Your task to perform on an android device: manage bookmarks in the chrome app Image 0: 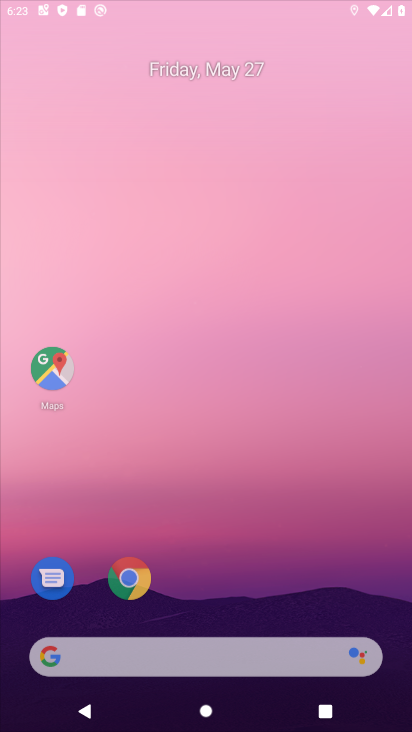
Step 0: click (245, 153)
Your task to perform on an android device: manage bookmarks in the chrome app Image 1: 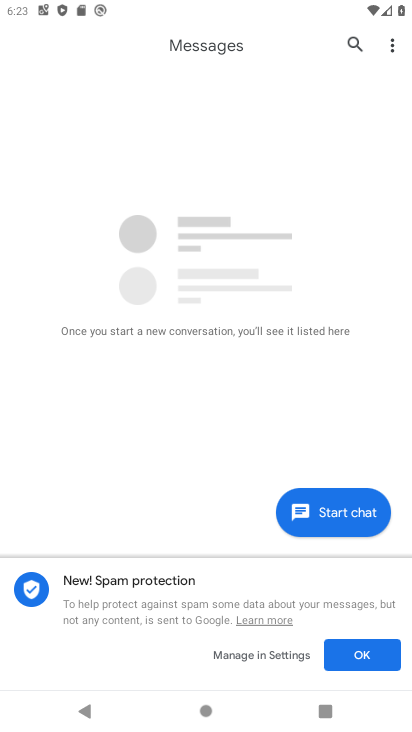
Step 1: press home button
Your task to perform on an android device: manage bookmarks in the chrome app Image 2: 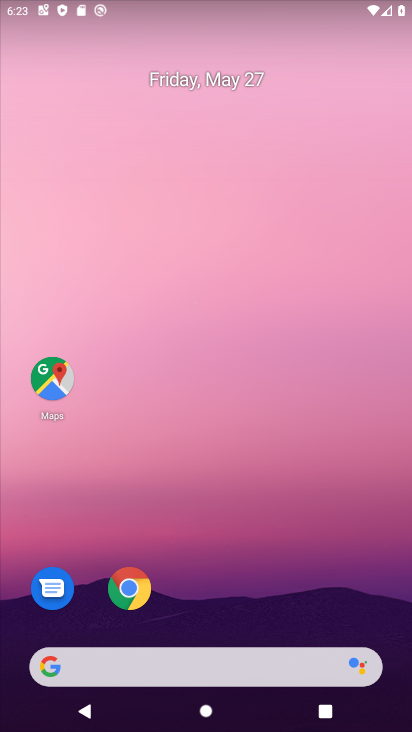
Step 2: drag from (196, 520) to (186, 74)
Your task to perform on an android device: manage bookmarks in the chrome app Image 3: 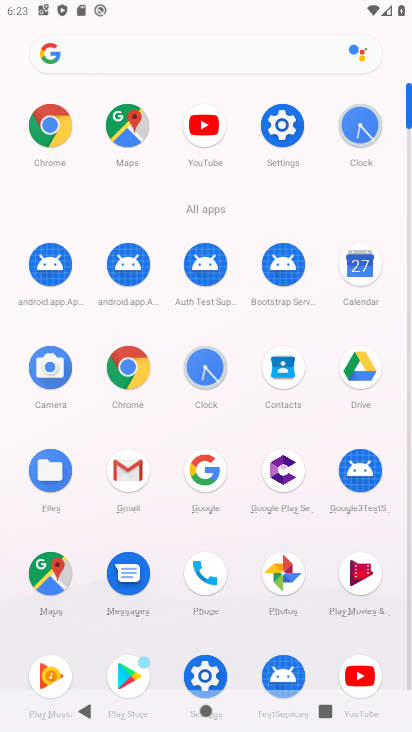
Step 3: click (132, 380)
Your task to perform on an android device: manage bookmarks in the chrome app Image 4: 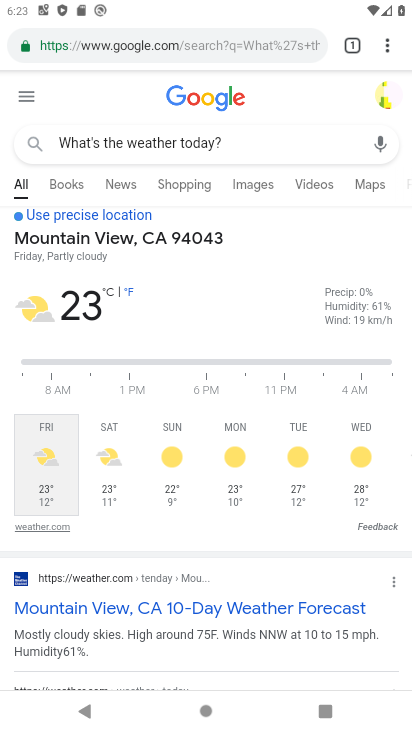
Step 4: task complete